Your task to perform on an android device: Open notification settings Image 0: 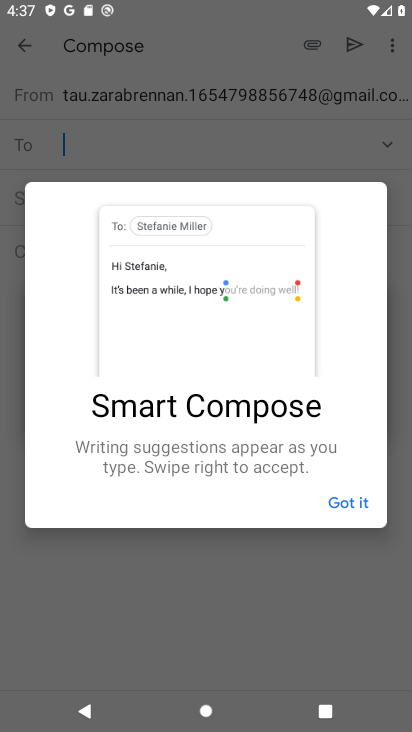
Step 0: press home button
Your task to perform on an android device: Open notification settings Image 1: 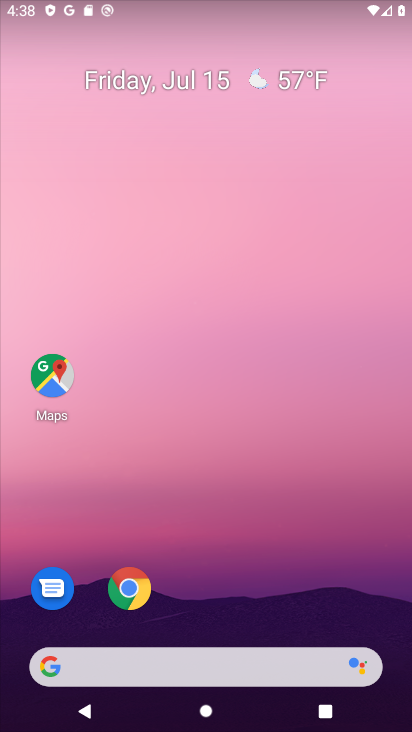
Step 1: drag from (246, 595) to (255, 84)
Your task to perform on an android device: Open notification settings Image 2: 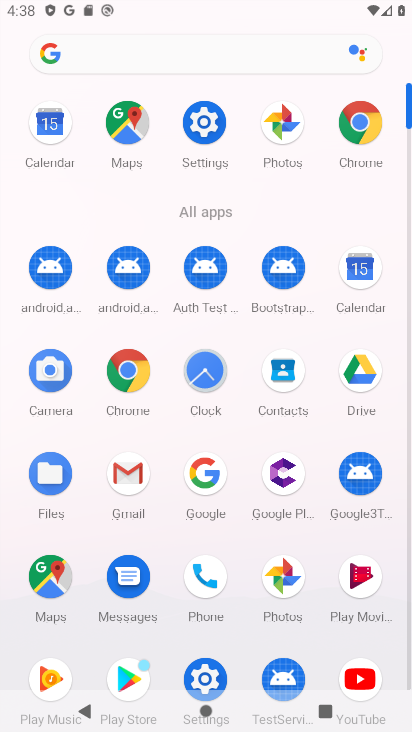
Step 2: click (192, 669)
Your task to perform on an android device: Open notification settings Image 3: 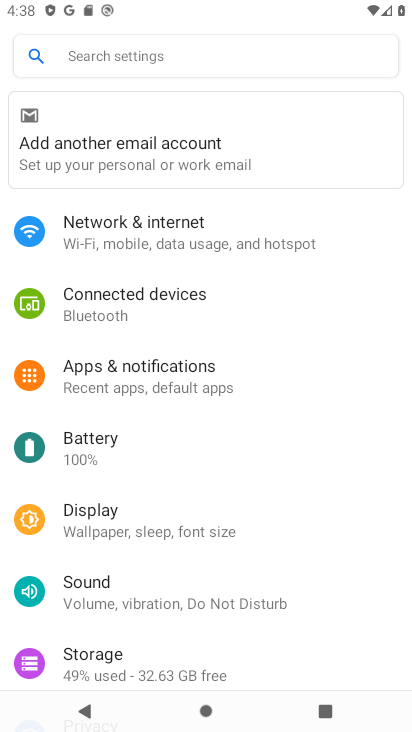
Step 3: click (122, 357)
Your task to perform on an android device: Open notification settings Image 4: 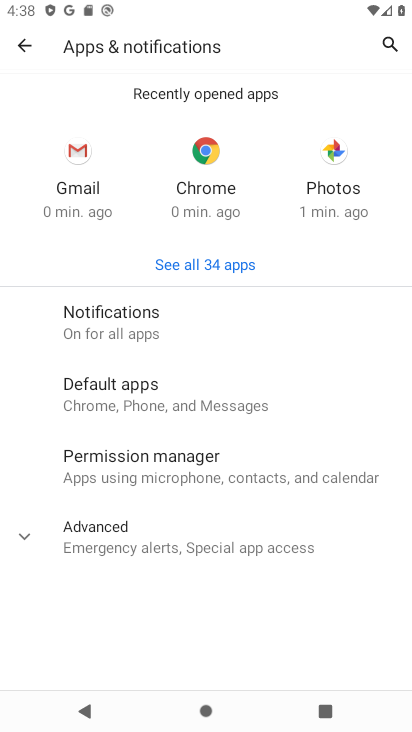
Step 4: click (136, 330)
Your task to perform on an android device: Open notification settings Image 5: 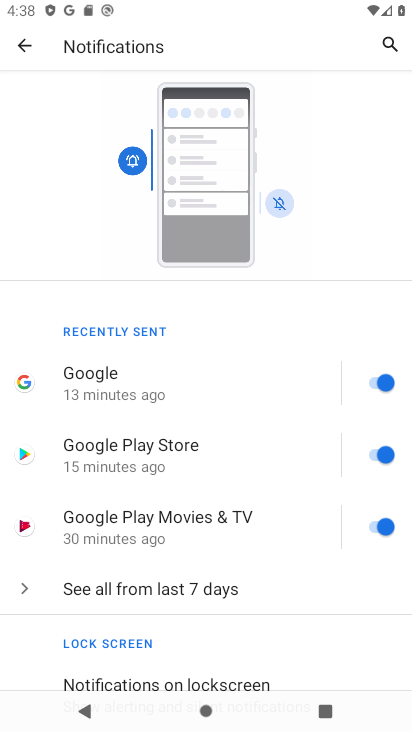
Step 5: task complete